Your task to perform on an android device: Empty the shopping cart on walmart. Add "razer deathadder" to the cart on walmart Image 0: 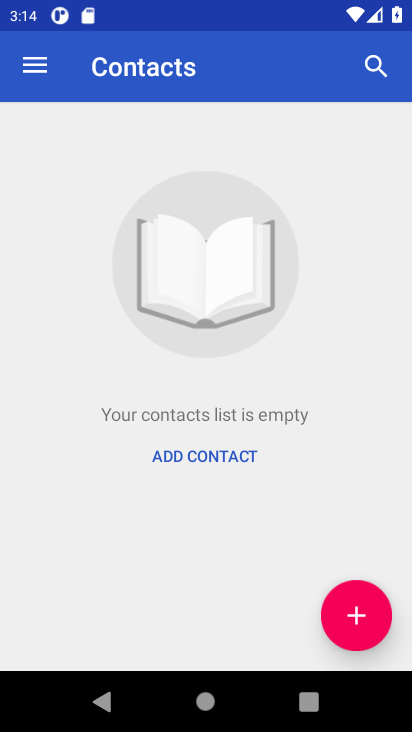
Step 0: press home button
Your task to perform on an android device: Empty the shopping cart on walmart. Add "razer deathadder" to the cart on walmart Image 1: 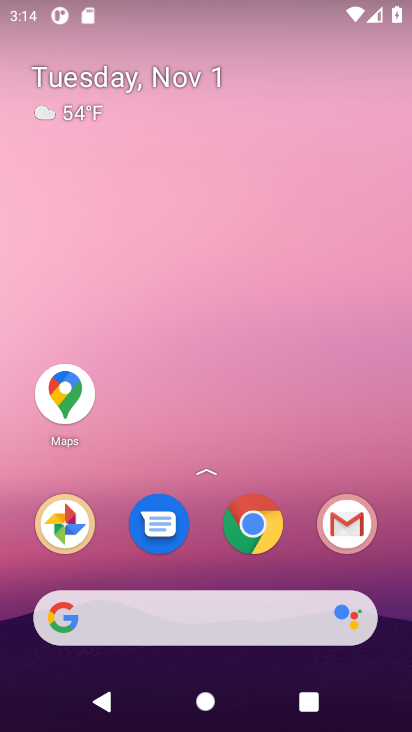
Step 1: click (254, 523)
Your task to perform on an android device: Empty the shopping cart on walmart. Add "razer deathadder" to the cart on walmart Image 2: 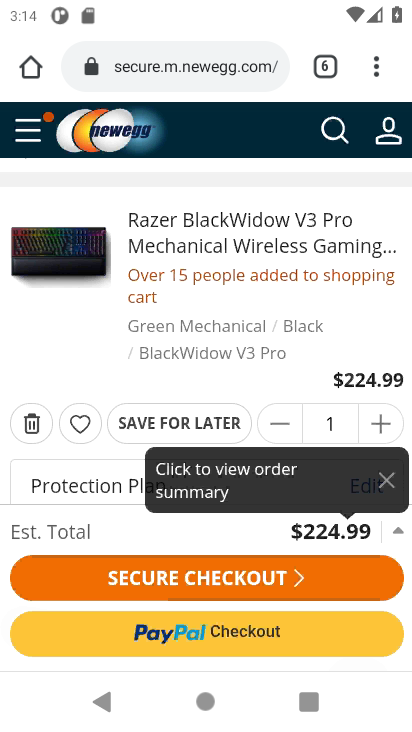
Step 2: click (206, 45)
Your task to perform on an android device: Empty the shopping cart on walmart. Add "razer deathadder" to the cart on walmart Image 3: 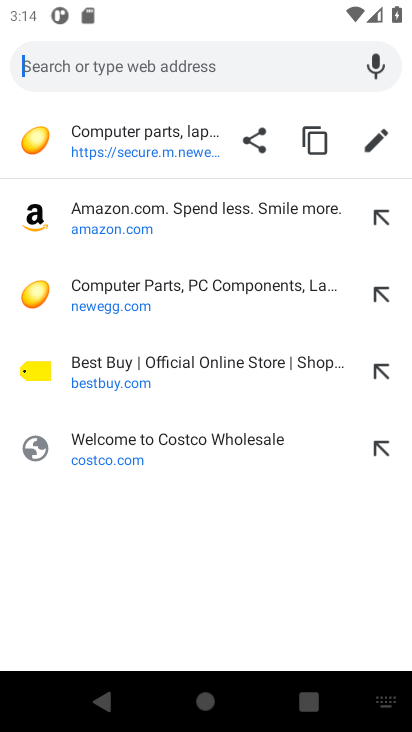
Step 3: type "walmart"
Your task to perform on an android device: Empty the shopping cart on walmart. Add "razer deathadder" to the cart on walmart Image 4: 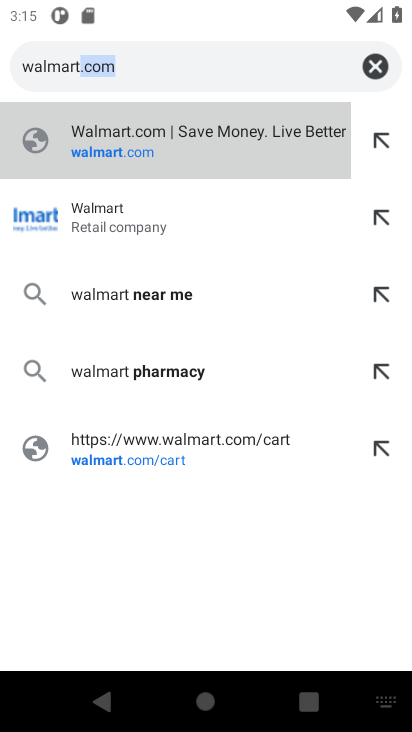
Step 4: click (100, 136)
Your task to perform on an android device: Empty the shopping cart on walmart. Add "razer deathadder" to the cart on walmart Image 5: 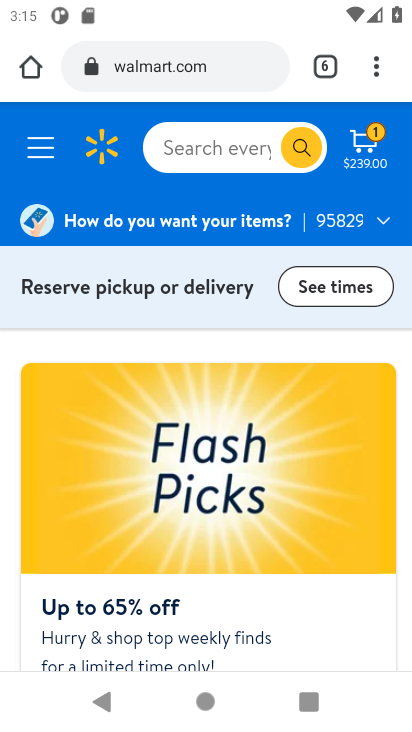
Step 5: click (366, 139)
Your task to perform on an android device: Empty the shopping cart on walmart. Add "razer deathadder" to the cart on walmart Image 6: 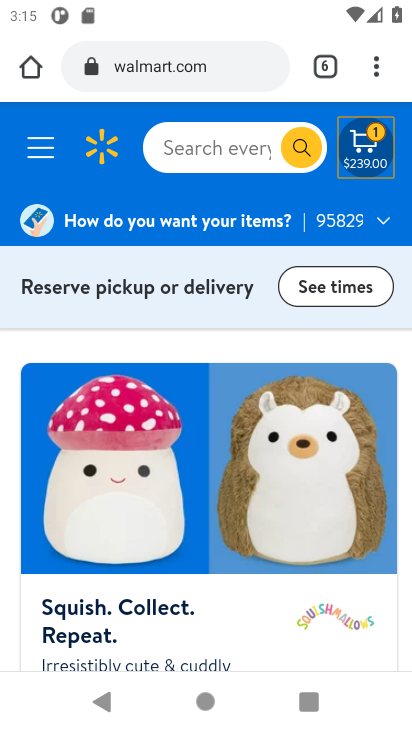
Step 6: click (366, 141)
Your task to perform on an android device: Empty the shopping cart on walmart. Add "razer deathadder" to the cart on walmart Image 7: 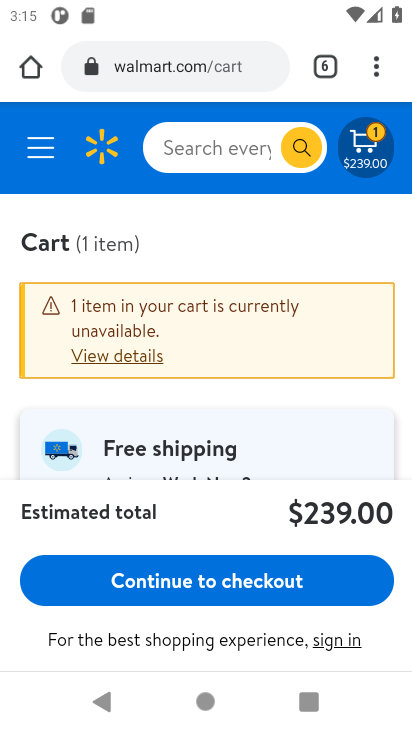
Step 7: drag from (290, 447) to (244, 209)
Your task to perform on an android device: Empty the shopping cart on walmart. Add "razer deathadder" to the cart on walmart Image 8: 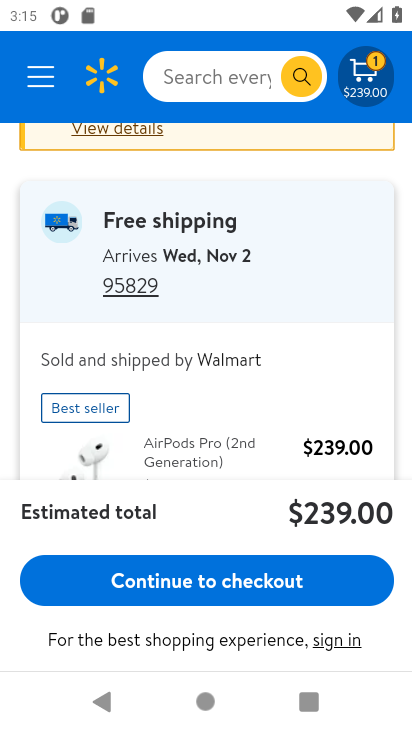
Step 8: drag from (280, 425) to (274, 199)
Your task to perform on an android device: Empty the shopping cart on walmart. Add "razer deathadder" to the cart on walmart Image 9: 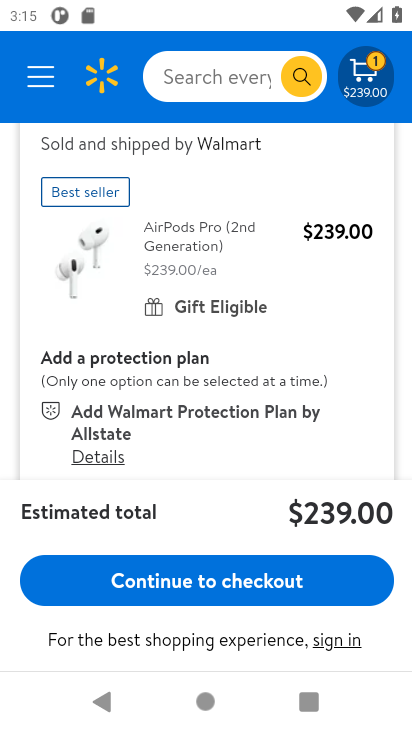
Step 9: drag from (296, 466) to (297, 237)
Your task to perform on an android device: Empty the shopping cart on walmart. Add "razer deathadder" to the cart on walmart Image 10: 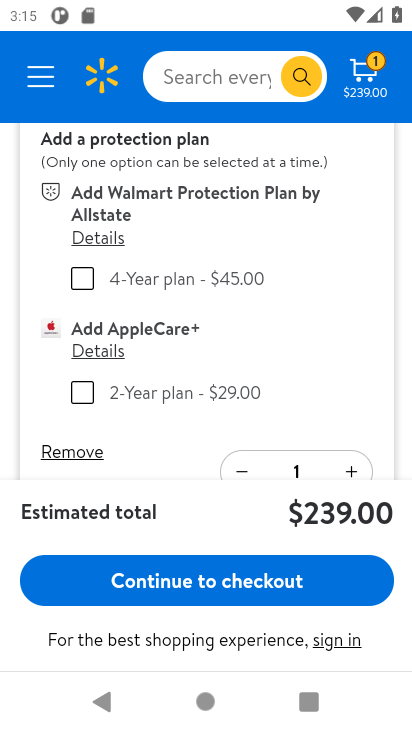
Step 10: drag from (292, 411) to (285, 255)
Your task to perform on an android device: Empty the shopping cart on walmart. Add "razer deathadder" to the cart on walmart Image 11: 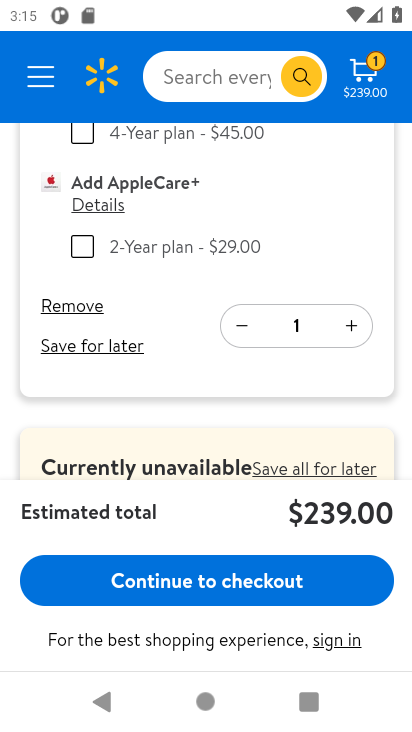
Step 11: click (61, 303)
Your task to perform on an android device: Empty the shopping cart on walmart. Add "razer deathadder" to the cart on walmart Image 12: 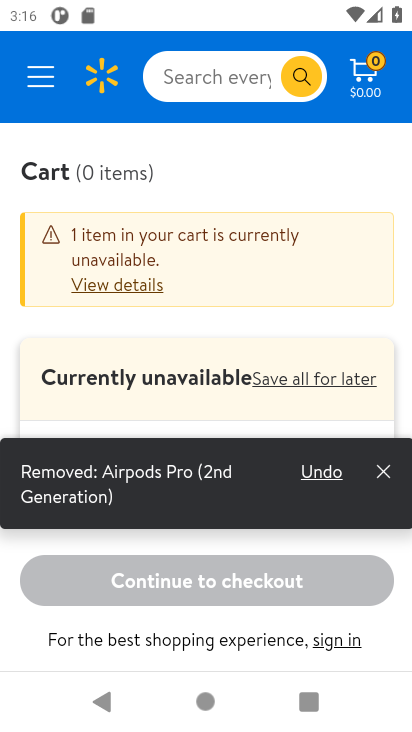
Step 12: click (382, 472)
Your task to perform on an android device: Empty the shopping cart on walmart. Add "razer deathadder" to the cart on walmart Image 13: 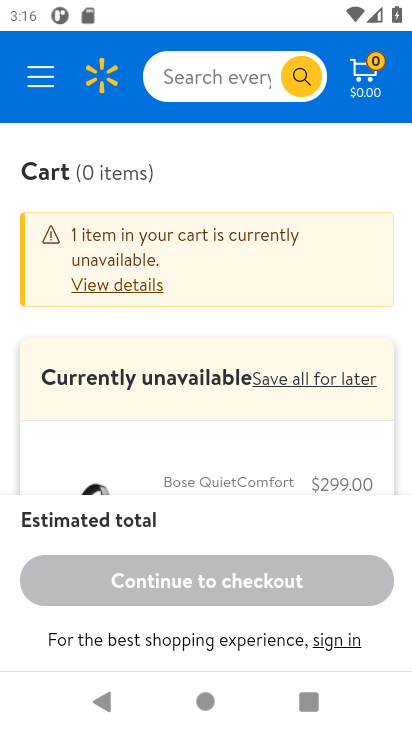
Step 13: click (185, 69)
Your task to perform on an android device: Empty the shopping cart on walmart. Add "razer deathadder" to the cart on walmart Image 14: 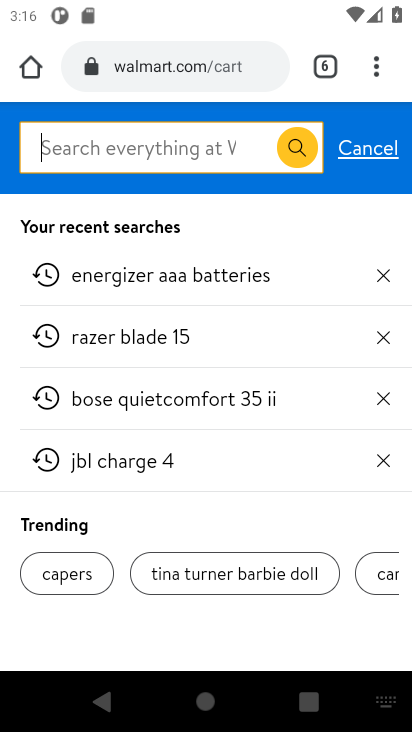
Step 14: type "razer deathadder"
Your task to perform on an android device: Empty the shopping cart on walmart. Add "razer deathadder" to the cart on walmart Image 15: 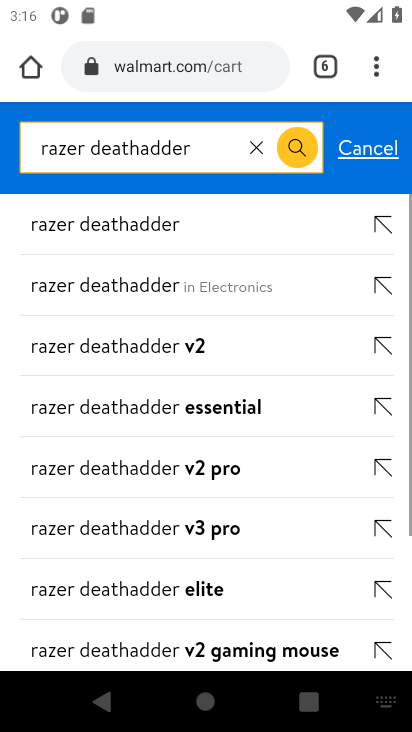
Step 15: click (81, 223)
Your task to perform on an android device: Empty the shopping cart on walmart. Add "razer deathadder" to the cart on walmart Image 16: 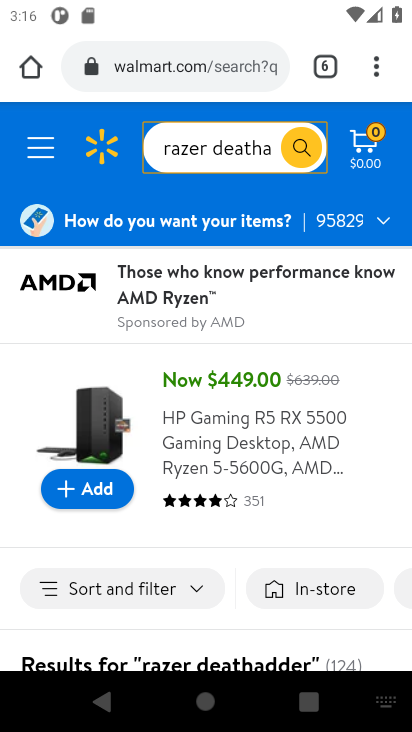
Step 16: drag from (231, 535) to (182, 144)
Your task to perform on an android device: Empty the shopping cart on walmart. Add "razer deathadder" to the cart on walmart Image 17: 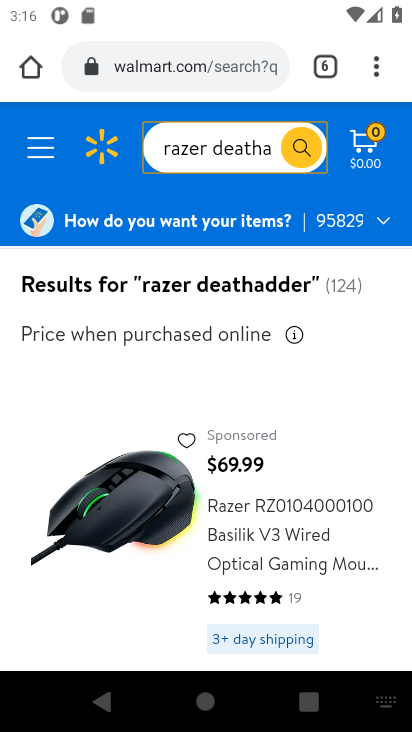
Step 17: drag from (230, 509) to (225, 382)
Your task to perform on an android device: Empty the shopping cart on walmart. Add "razer deathadder" to the cart on walmart Image 18: 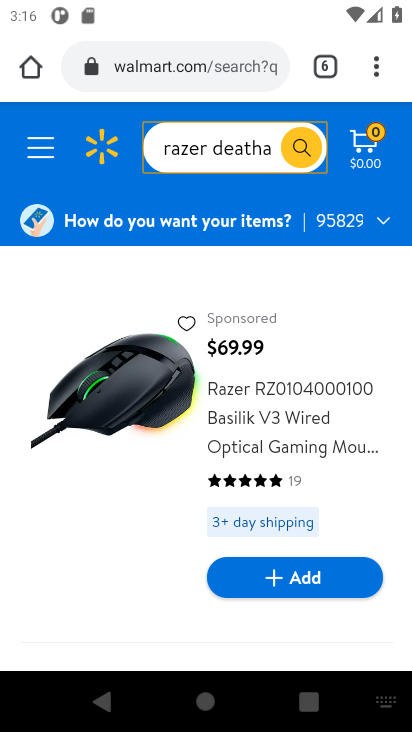
Step 18: drag from (199, 637) to (174, 308)
Your task to perform on an android device: Empty the shopping cart on walmart. Add "razer deathadder" to the cart on walmart Image 19: 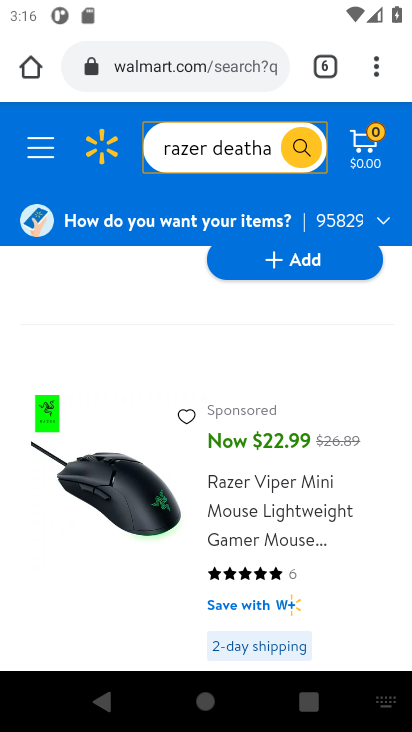
Step 19: drag from (205, 583) to (214, 267)
Your task to perform on an android device: Empty the shopping cart on walmart. Add "razer deathadder" to the cart on walmart Image 20: 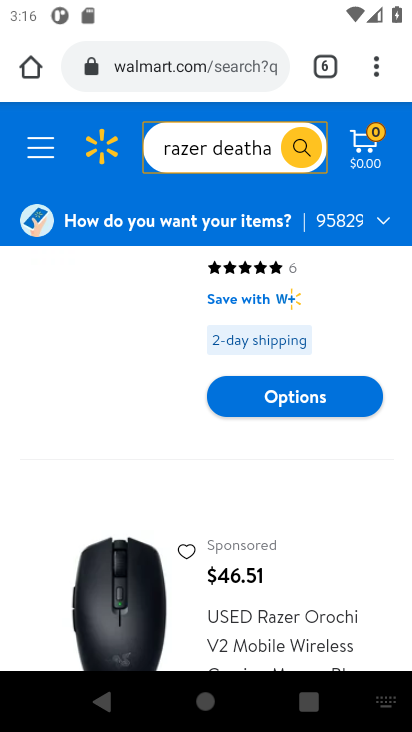
Step 20: drag from (207, 646) to (192, 490)
Your task to perform on an android device: Empty the shopping cart on walmart. Add "razer deathadder" to the cart on walmart Image 21: 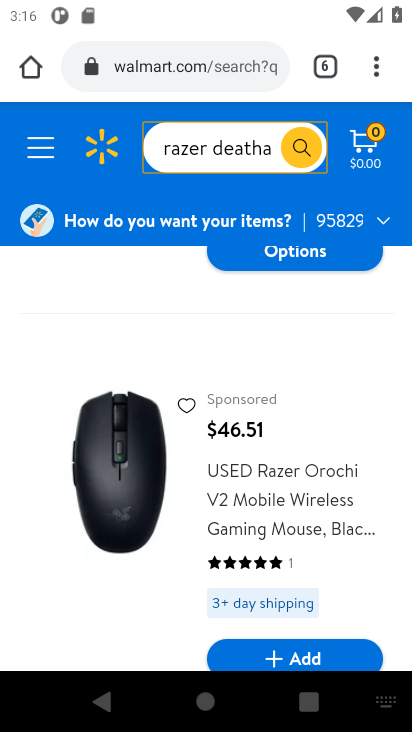
Step 21: drag from (183, 647) to (179, 284)
Your task to perform on an android device: Empty the shopping cart on walmart. Add "razer deathadder" to the cart on walmart Image 22: 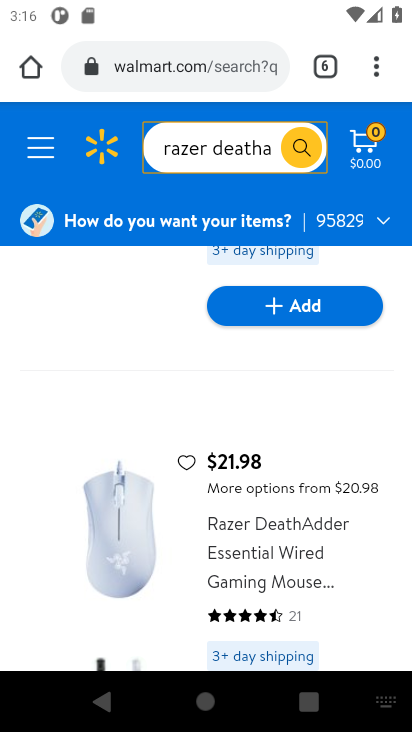
Step 22: drag from (160, 547) to (176, 377)
Your task to perform on an android device: Empty the shopping cart on walmart. Add "razer deathadder" to the cart on walmart Image 23: 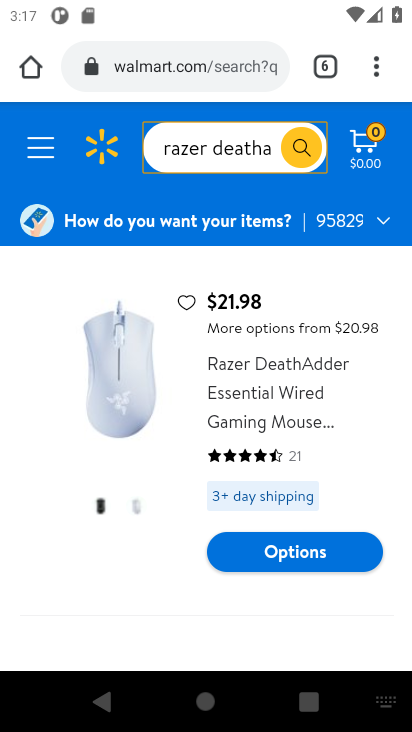
Step 23: click (289, 555)
Your task to perform on an android device: Empty the shopping cart on walmart. Add "razer deathadder" to the cart on walmart Image 24: 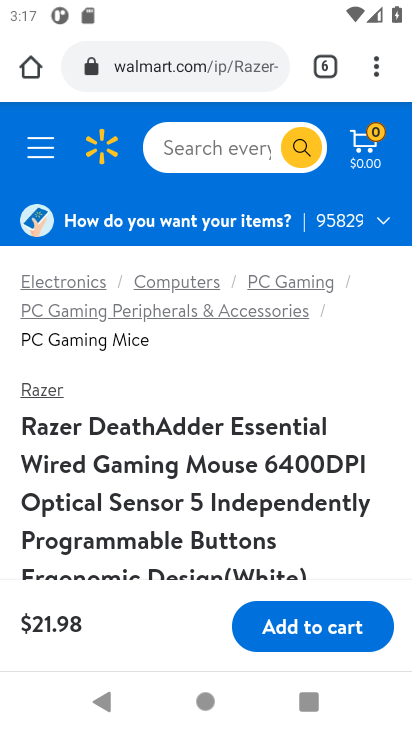
Step 24: click (327, 632)
Your task to perform on an android device: Empty the shopping cart on walmart. Add "razer deathadder" to the cart on walmart Image 25: 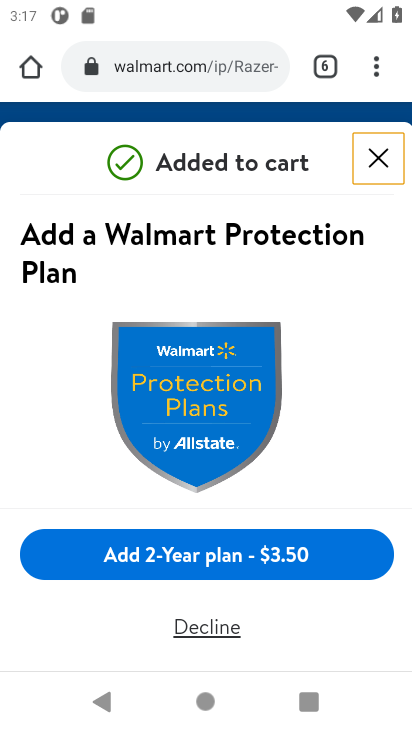
Step 25: click (204, 624)
Your task to perform on an android device: Empty the shopping cart on walmart. Add "razer deathadder" to the cart on walmart Image 26: 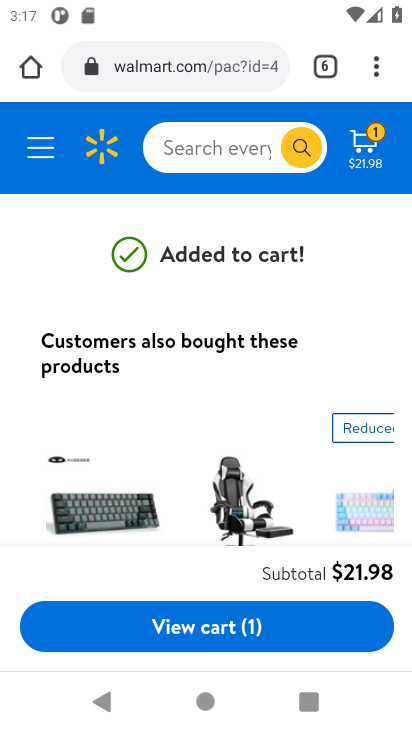
Step 26: task complete